Your task to perform on an android device: turn on priority inbox in the gmail app Image 0: 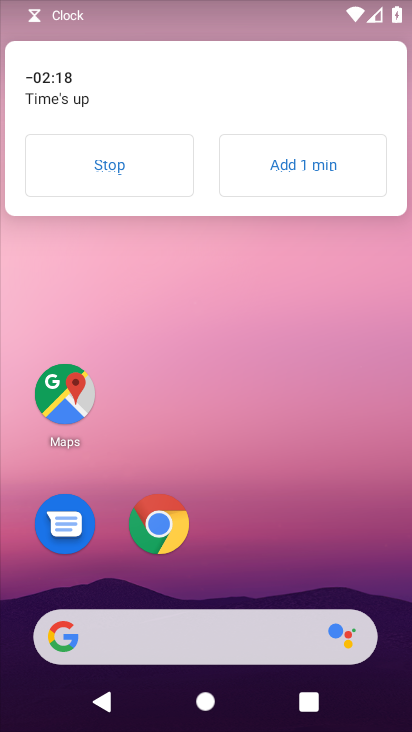
Step 0: drag from (251, 550) to (251, 88)
Your task to perform on an android device: turn on priority inbox in the gmail app Image 1: 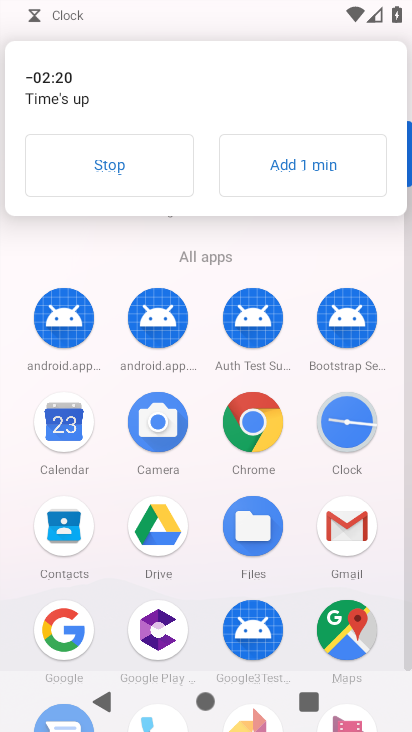
Step 1: click (339, 549)
Your task to perform on an android device: turn on priority inbox in the gmail app Image 2: 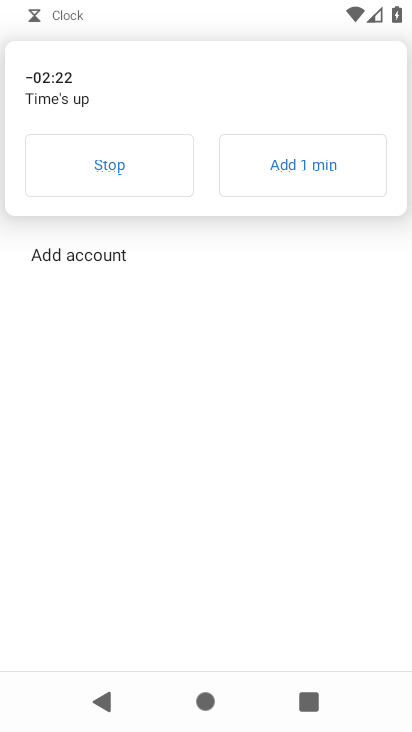
Step 2: click (115, 170)
Your task to perform on an android device: turn on priority inbox in the gmail app Image 3: 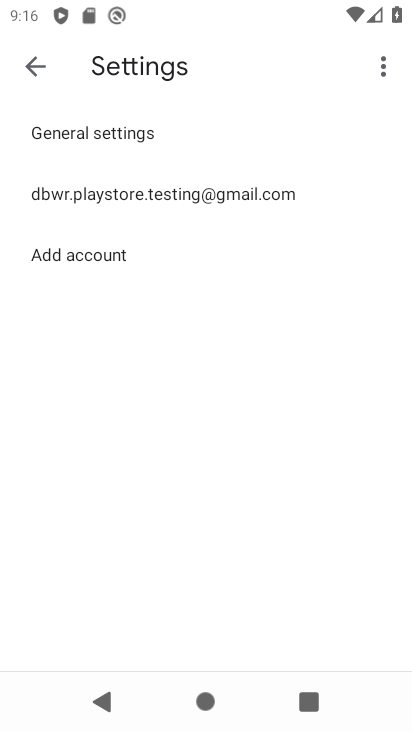
Step 3: click (45, 69)
Your task to perform on an android device: turn on priority inbox in the gmail app Image 4: 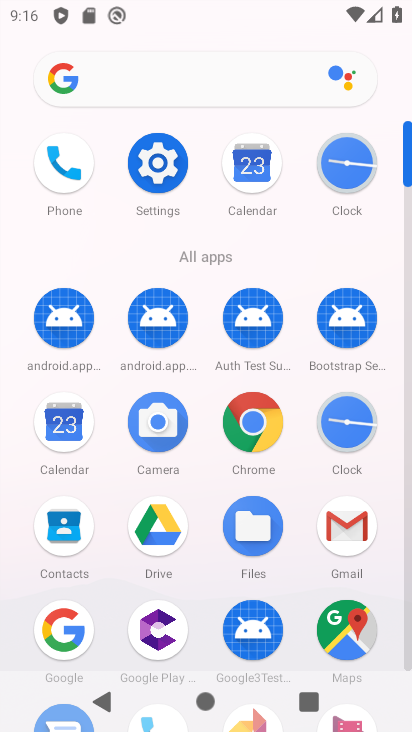
Step 4: click (347, 504)
Your task to perform on an android device: turn on priority inbox in the gmail app Image 5: 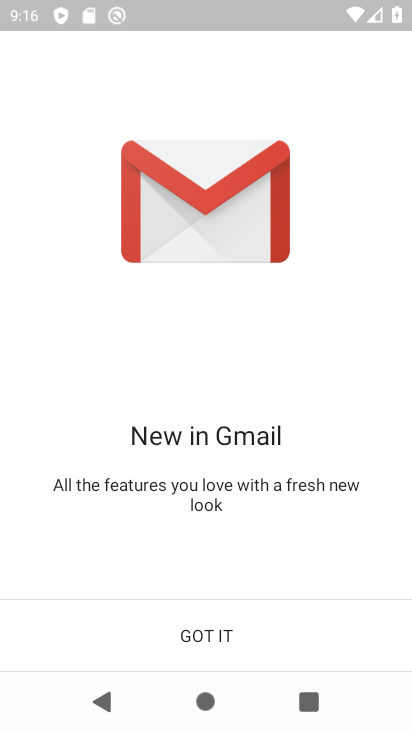
Step 5: click (241, 620)
Your task to perform on an android device: turn on priority inbox in the gmail app Image 6: 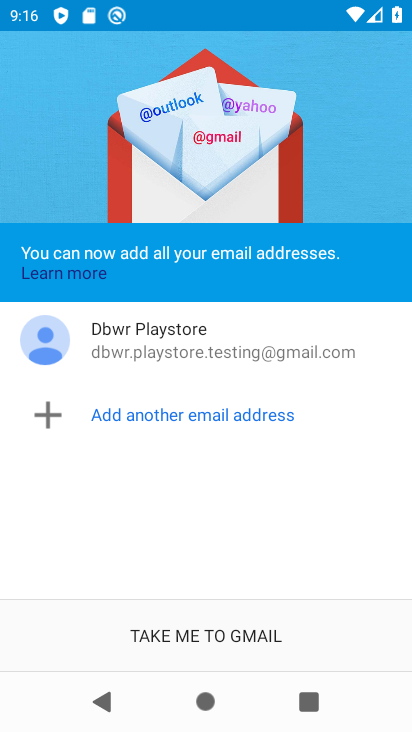
Step 6: click (241, 620)
Your task to perform on an android device: turn on priority inbox in the gmail app Image 7: 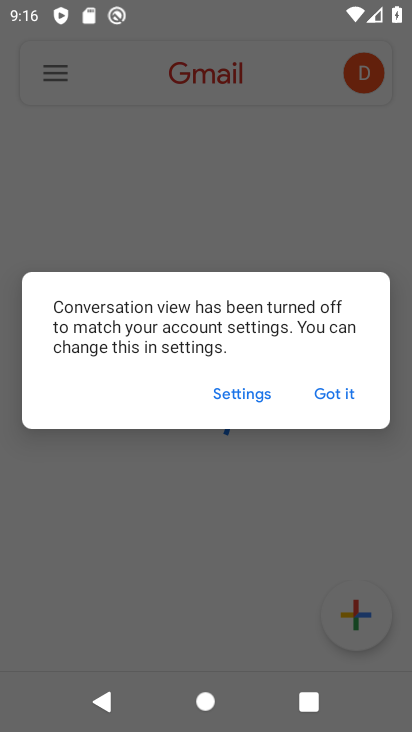
Step 7: click (332, 398)
Your task to perform on an android device: turn on priority inbox in the gmail app Image 8: 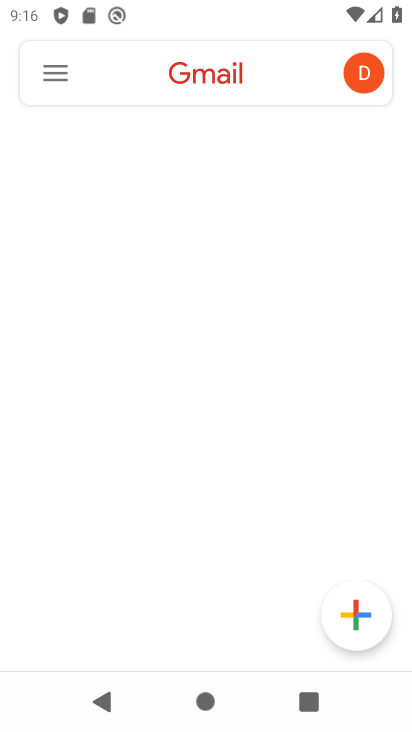
Step 8: click (63, 66)
Your task to perform on an android device: turn on priority inbox in the gmail app Image 9: 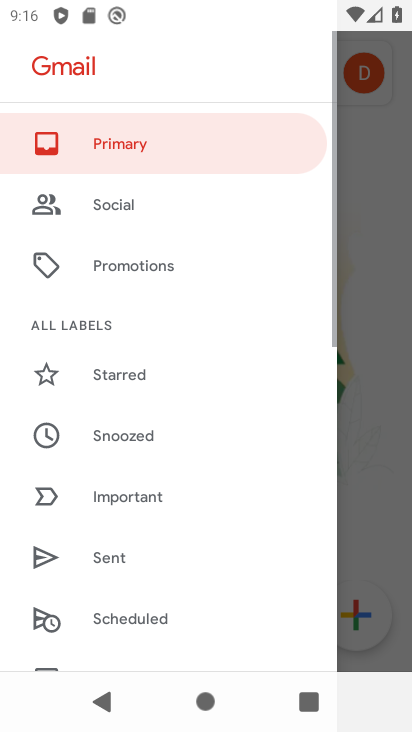
Step 9: drag from (159, 575) to (146, 207)
Your task to perform on an android device: turn on priority inbox in the gmail app Image 10: 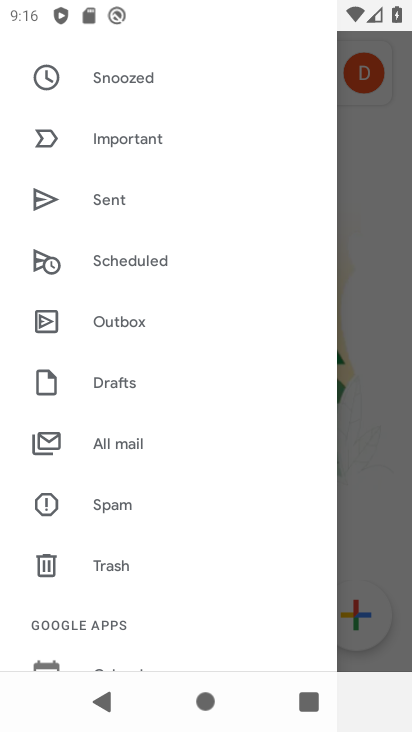
Step 10: drag from (177, 566) to (183, 247)
Your task to perform on an android device: turn on priority inbox in the gmail app Image 11: 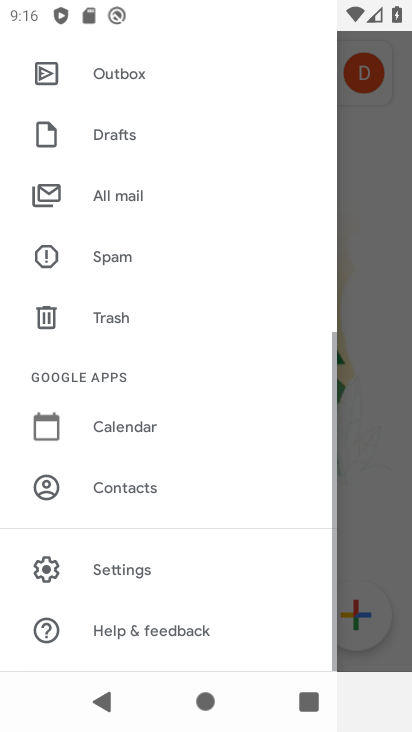
Step 11: click (166, 568)
Your task to perform on an android device: turn on priority inbox in the gmail app Image 12: 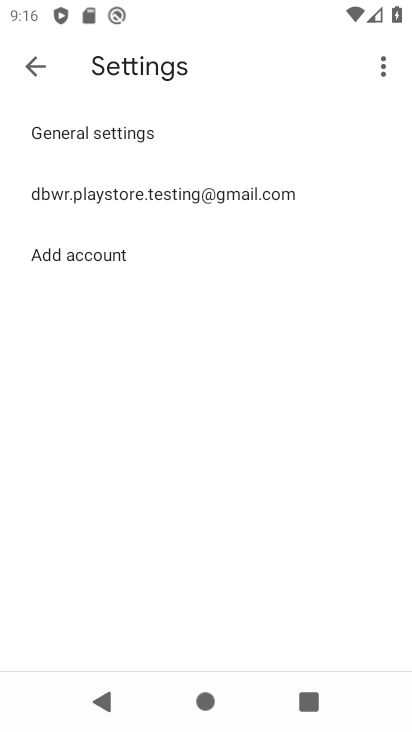
Step 12: click (132, 195)
Your task to perform on an android device: turn on priority inbox in the gmail app Image 13: 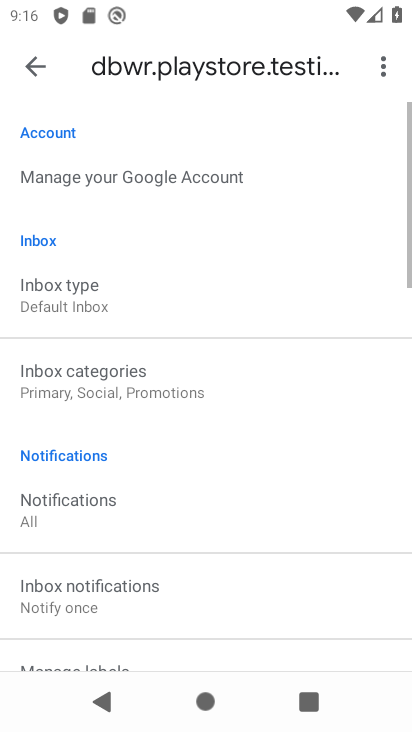
Step 13: click (114, 321)
Your task to perform on an android device: turn on priority inbox in the gmail app Image 14: 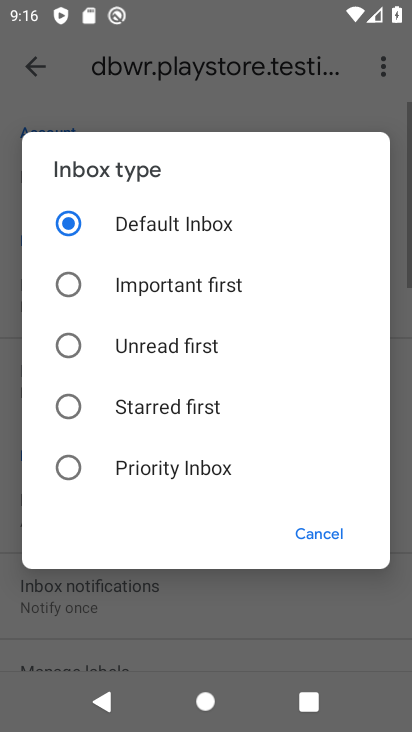
Step 14: click (125, 457)
Your task to perform on an android device: turn on priority inbox in the gmail app Image 15: 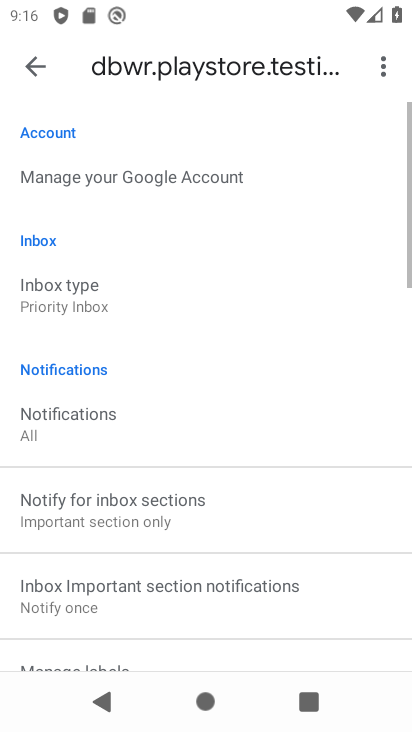
Step 15: task complete